Your task to perform on an android device: Search for seafood restaurants on Google Maps Image 0: 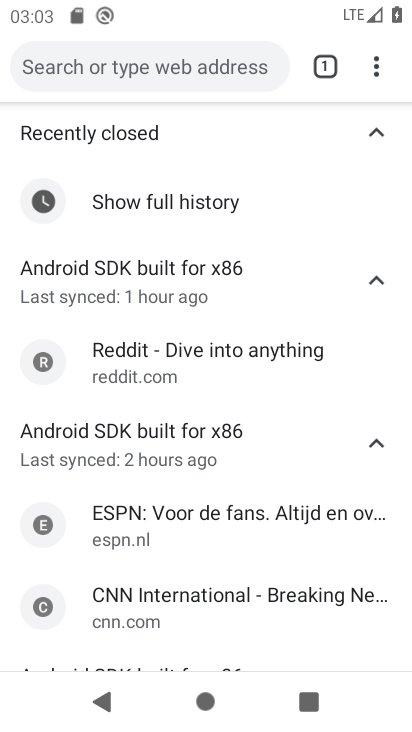
Step 0: press home button
Your task to perform on an android device: Search for seafood restaurants on Google Maps Image 1: 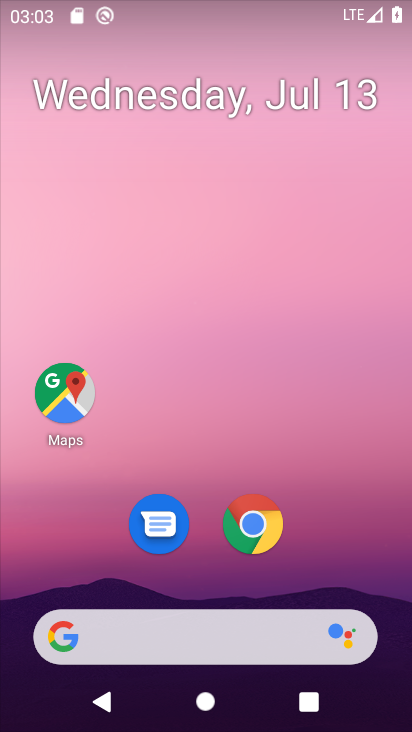
Step 1: click (59, 377)
Your task to perform on an android device: Search for seafood restaurants on Google Maps Image 2: 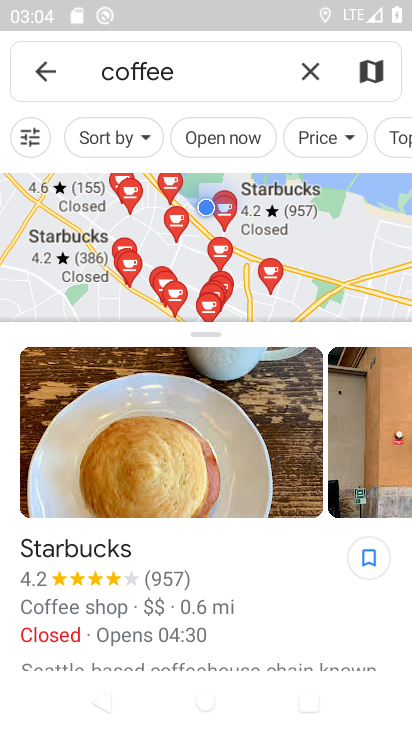
Step 2: click (306, 70)
Your task to perform on an android device: Search for seafood restaurants on Google Maps Image 3: 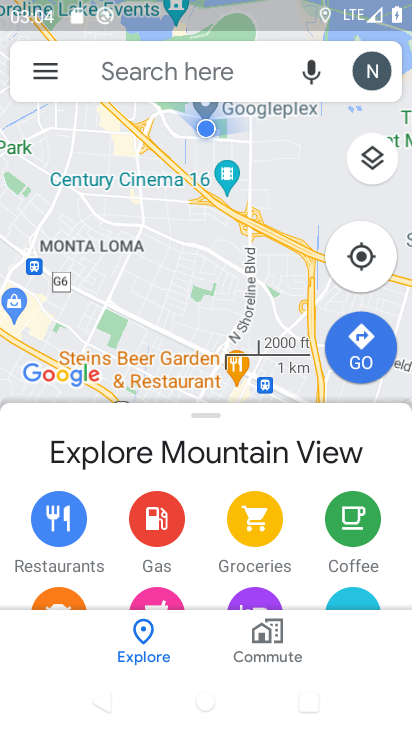
Step 3: click (255, 70)
Your task to perform on an android device: Search for seafood restaurants on Google Maps Image 4: 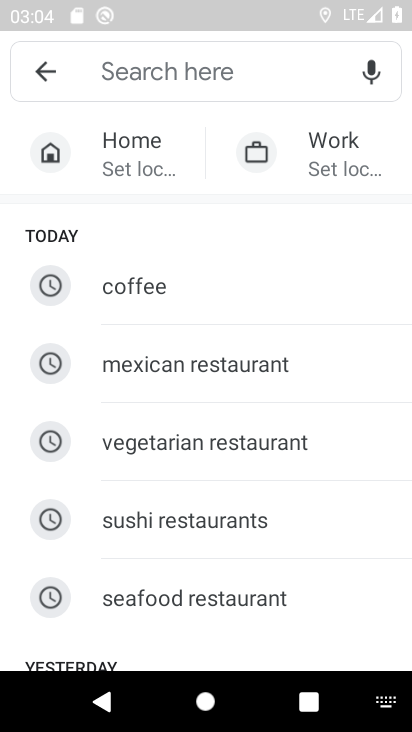
Step 4: click (205, 593)
Your task to perform on an android device: Search for seafood restaurants on Google Maps Image 5: 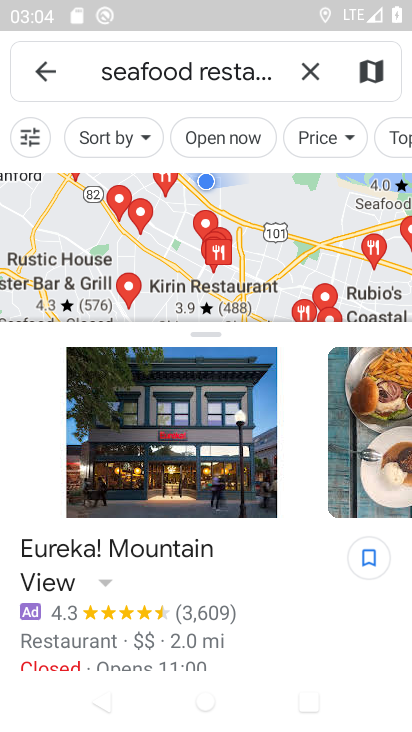
Step 5: task complete